Your task to perform on an android device: Open the Play Movies app and select the watchlist tab. Image 0: 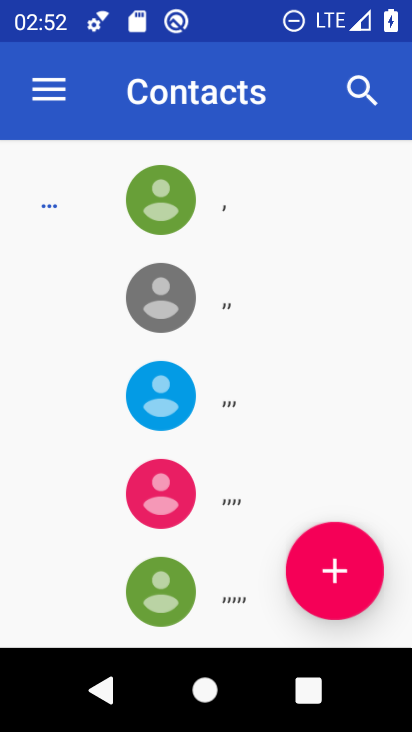
Step 0: click (226, 600)
Your task to perform on an android device: Open the Play Movies app and select the watchlist tab. Image 1: 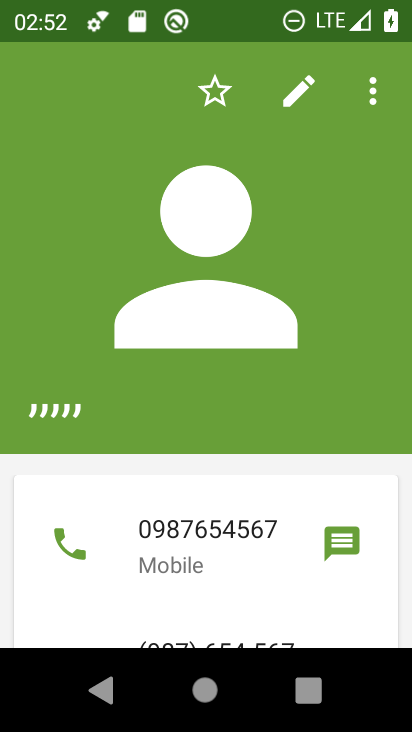
Step 1: press home button
Your task to perform on an android device: Open the Play Movies app and select the watchlist tab. Image 2: 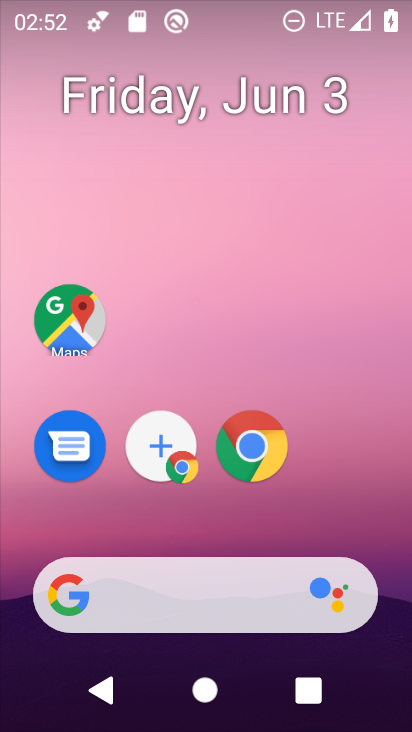
Step 2: drag from (228, 463) to (250, 41)
Your task to perform on an android device: Open the Play Movies app and select the watchlist tab. Image 3: 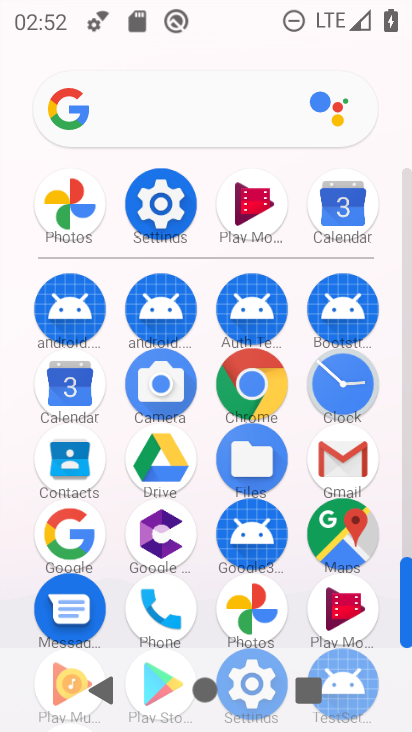
Step 3: click (356, 607)
Your task to perform on an android device: Open the Play Movies app and select the watchlist tab. Image 4: 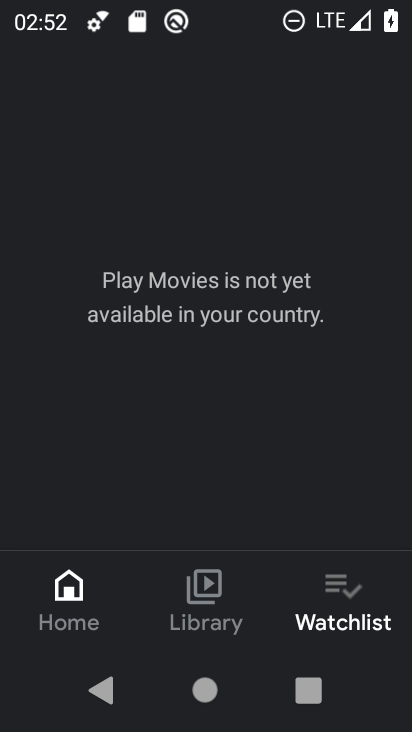
Step 4: task complete